Your task to perform on an android device: What is the news today? Image 0: 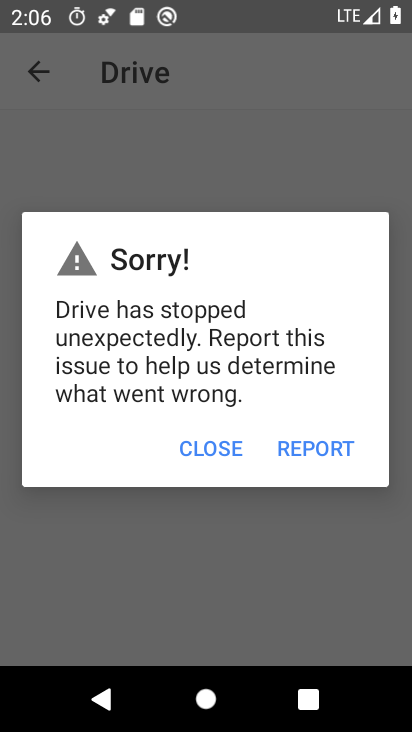
Step 0: press home button
Your task to perform on an android device: What is the news today? Image 1: 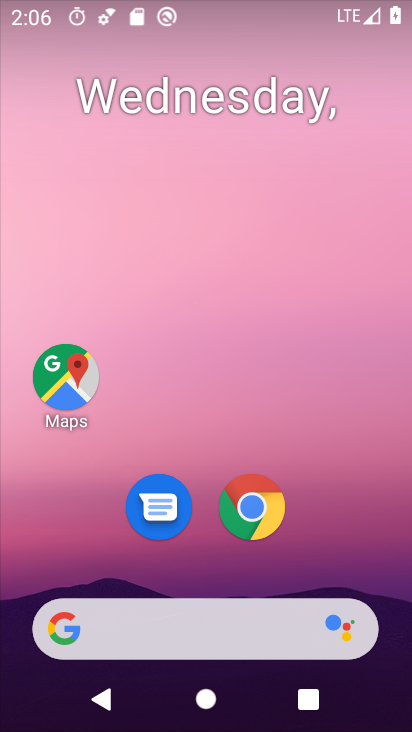
Step 1: click (185, 624)
Your task to perform on an android device: What is the news today? Image 2: 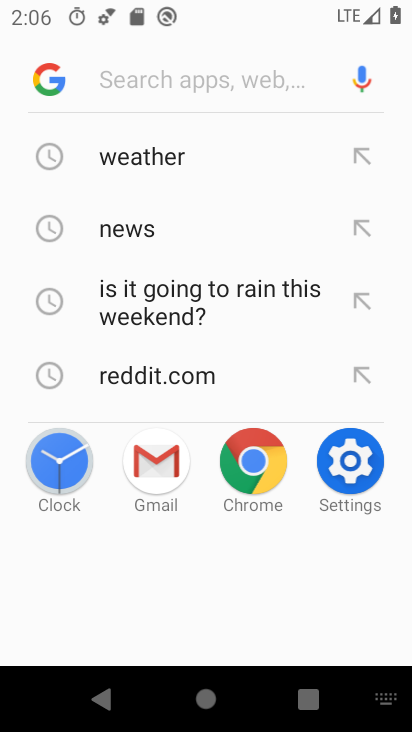
Step 2: type "what is the news today"
Your task to perform on an android device: What is the news today? Image 3: 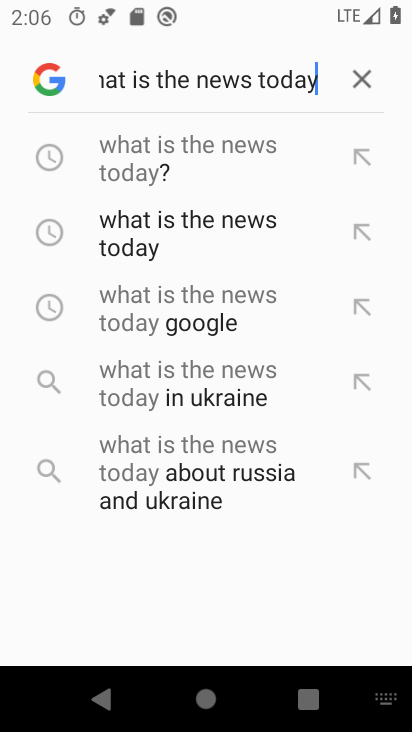
Step 3: click (224, 168)
Your task to perform on an android device: What is the news today? Image 4: 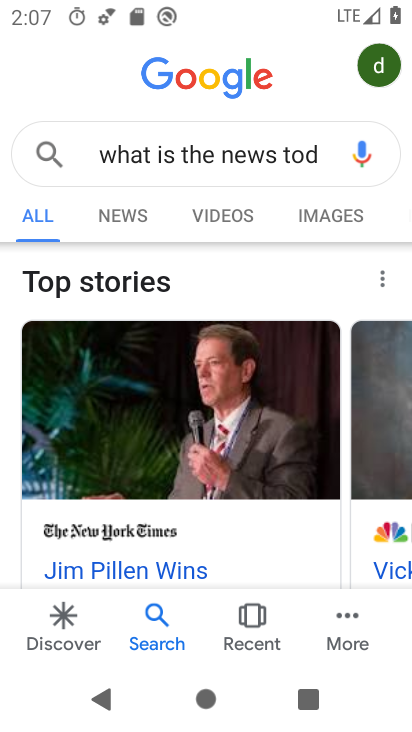
Step 4: click (101, 214)
Your task to perform on an android device: What is the news today? Image 5: 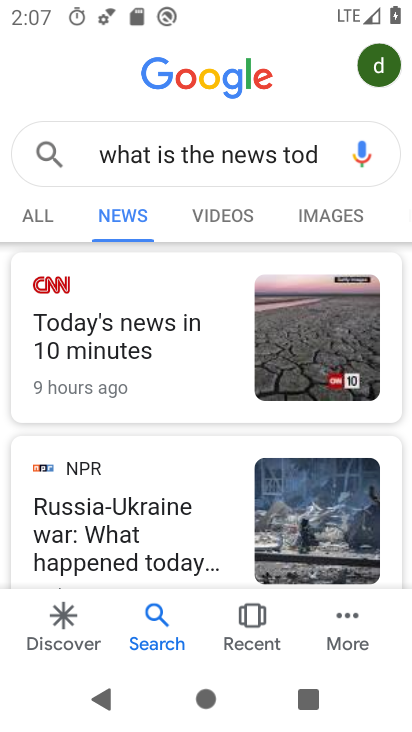
Step 5: task complete